Your task to perform on an android device: Go to privacy settings Image 0: 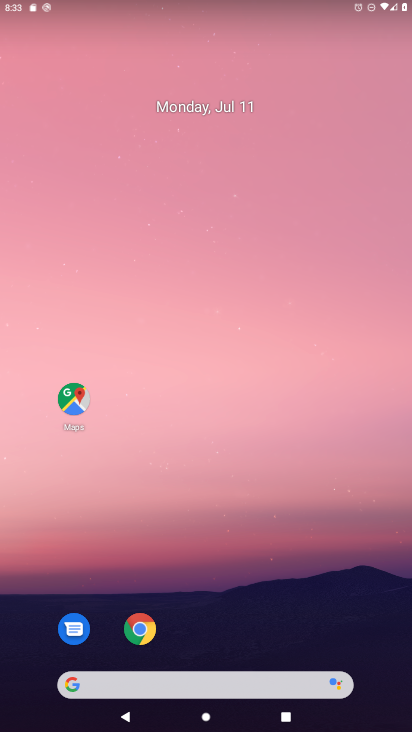
Step 0: drag from (238, 621) to (255, 64)
Your task to perform on an android device: Go to privacy settings Image 1: 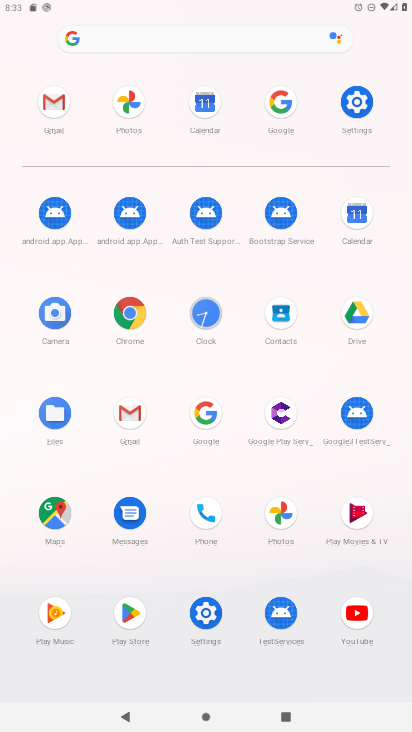
Step 1: click (134, 315)
Your task to perform on an android device: Go to privacy settings Image 2: 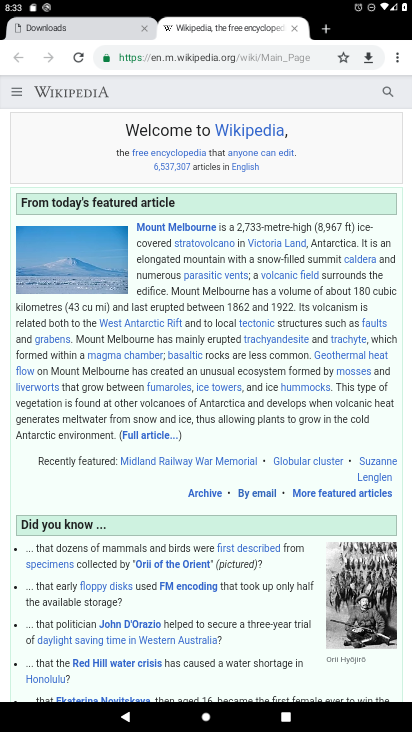
Step 2: click (394, 57)
Your task to perform on an android device: Go to privacy settings Image 3: 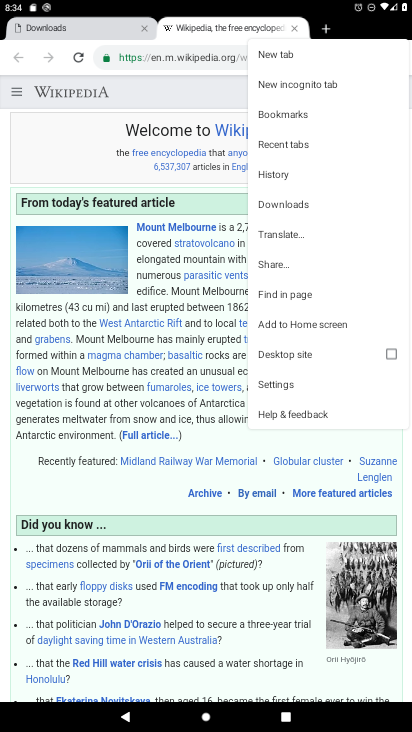
Step 3: click (286, 385)
Your task to perform on an android device: Go to privacy settings Image 4: 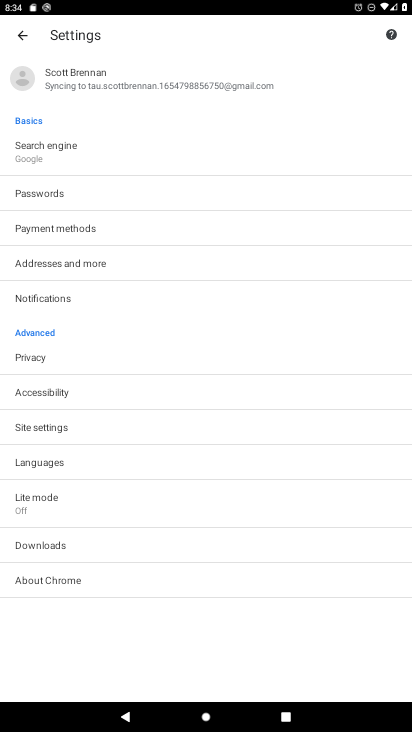
Step 4: click (59, 359)
Your task to perform on an android device: Go to privacy settings Image 5: 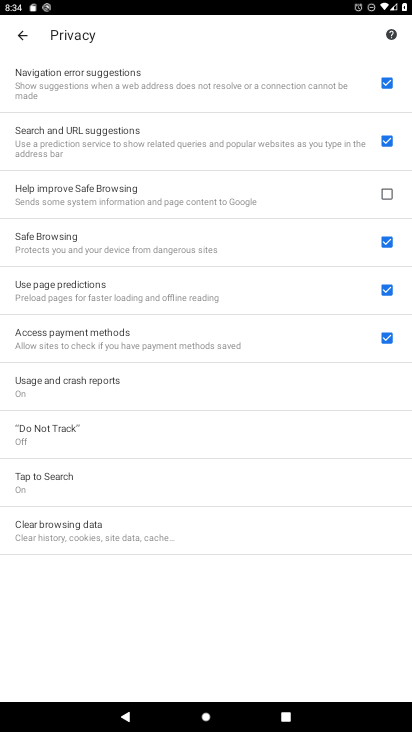
Step 5: task complete